Your task to perform on an android device: Open the Play Movies app and select the watchlist tab. Image 0: 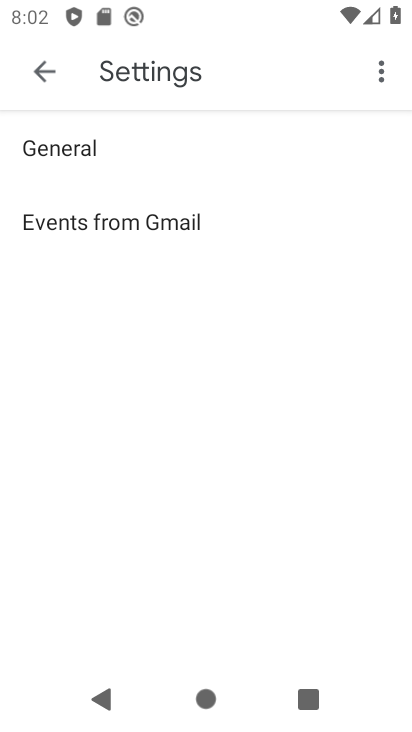
Step 0: press home button
Your task to perform on an android device: Open the Play Movies app and select the watchlist tab. Image 1: 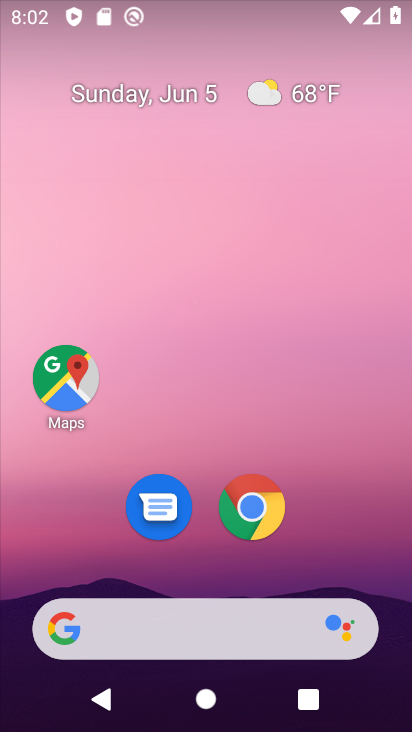
Step 1: drag from (201, 540) to (305, 2)
Your task to perform on an android device: Open the Play Movies app and select the watchlist tab. Image 2: 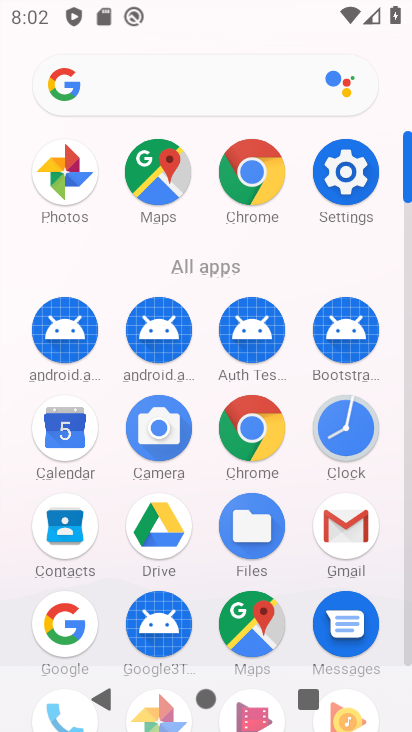
Step 2: drag from (224, 537) to (273, 59)
Your task to perform on an android device: Open the Play Movies app and select the watchlist tab. Image 3: 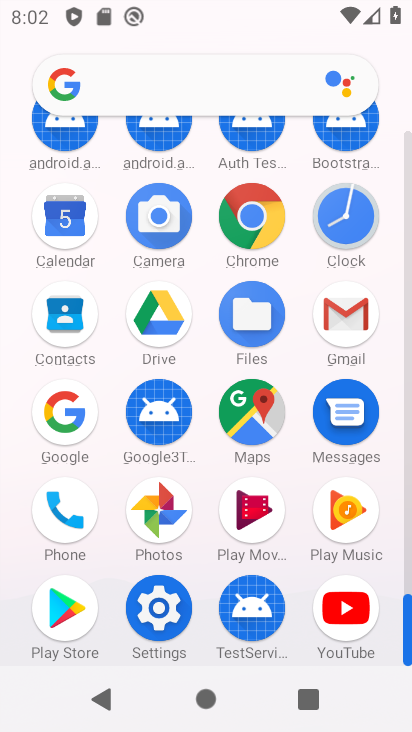
Step 3: click (254, 507)
Your task to perform on an android device: Open the Play Movies app and select the watchlist tab. Image 4: 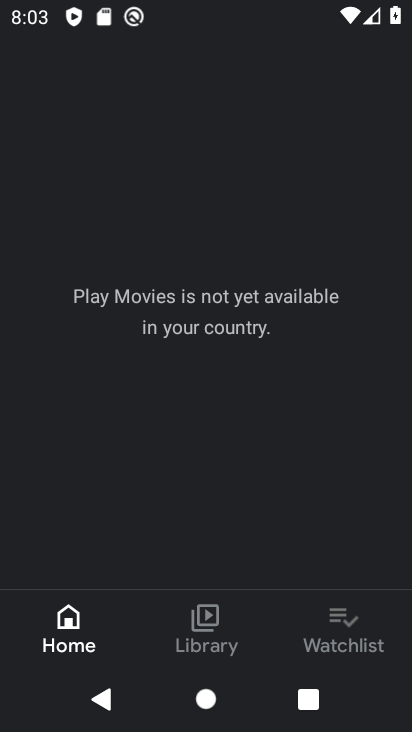
Step 4: click (338, 621)
Your task to perform on an android device: Open the Play Movies app and select the watchlist tab. Image 5: 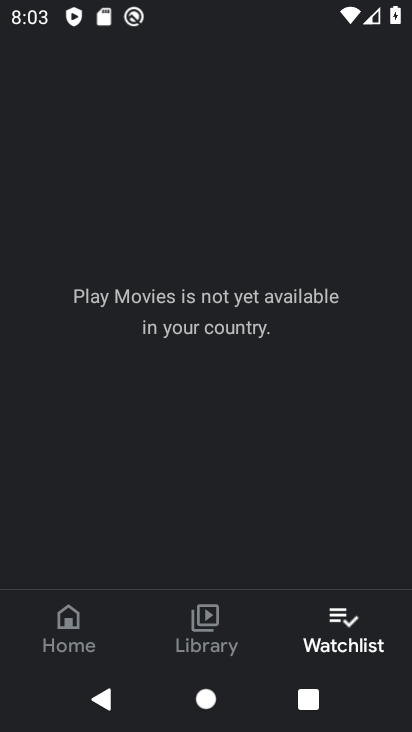
Step 5: task complete